Your task to perform on an android device: toggle airplane mode Image 0: 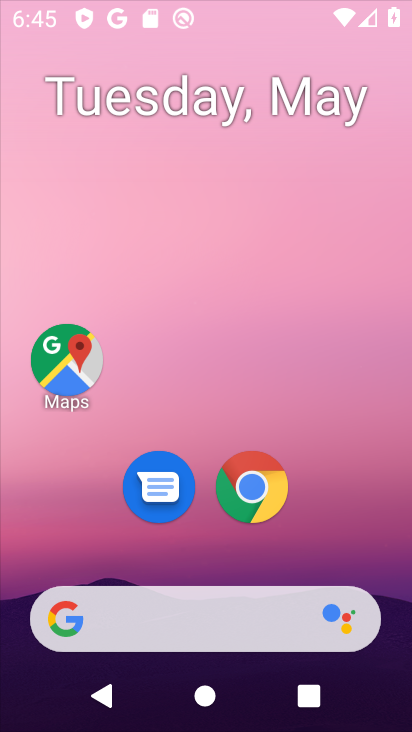
Step 0: click (247, 495)
Your task to perform on an android device: toggle airplane mode Image 1: 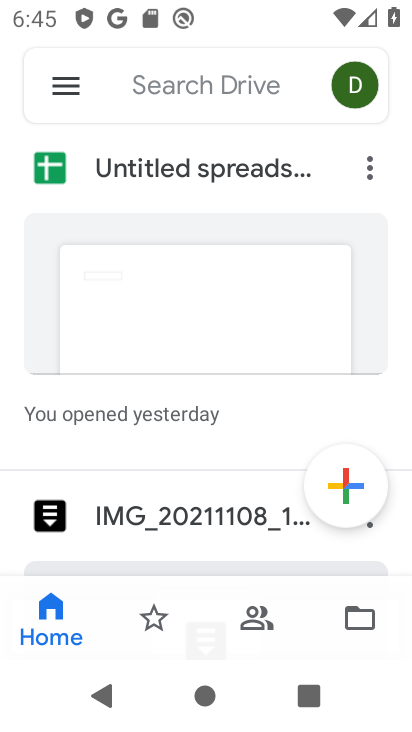
Step 1: press home button
Your task to perform on an android device: toggle airplane mode Image 2: 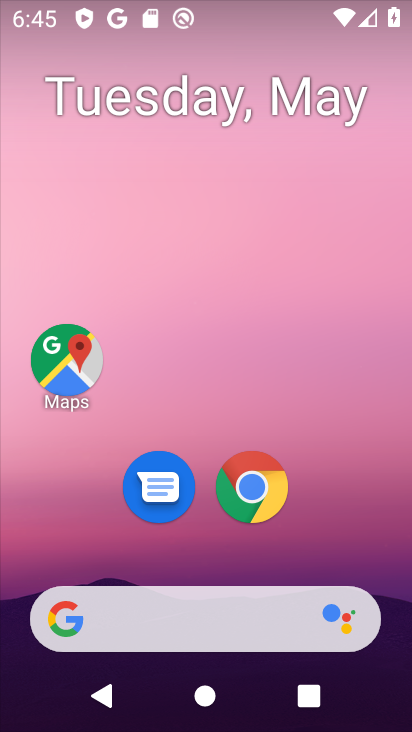
Step 2: drag from (350, 521) to (273, 45)
Your task to perform on an android device: toggle airplane mode Image 3: 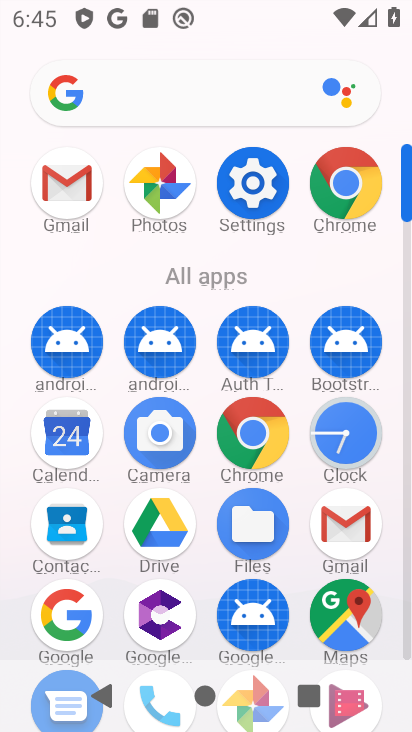
Step 3: click (253, 182)
Your task to perform on an android device: toggle airplane mode Image 4: 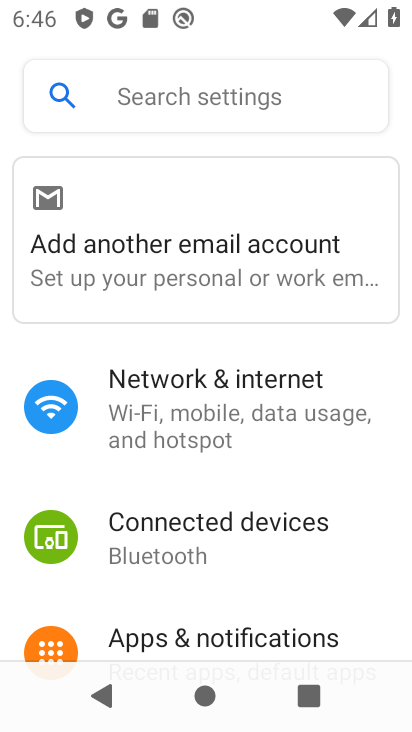
Step 4: click (189, 387)
Your task to perform on an android device: toggle airplane mode Image 5: 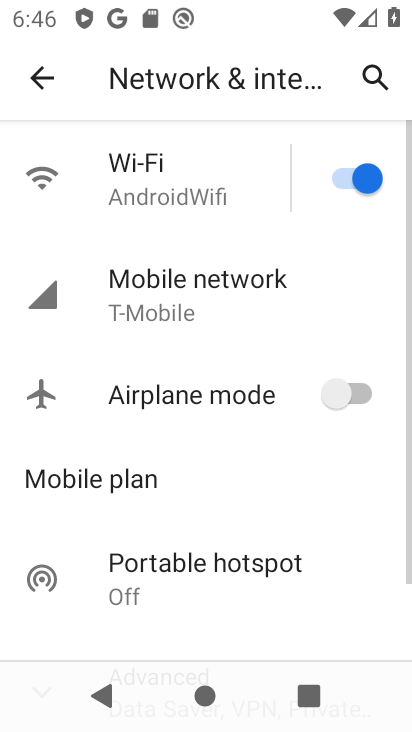
Step 5: click (352, 385)
Your task to perform on an android device: toggle airplane mode Image 6: 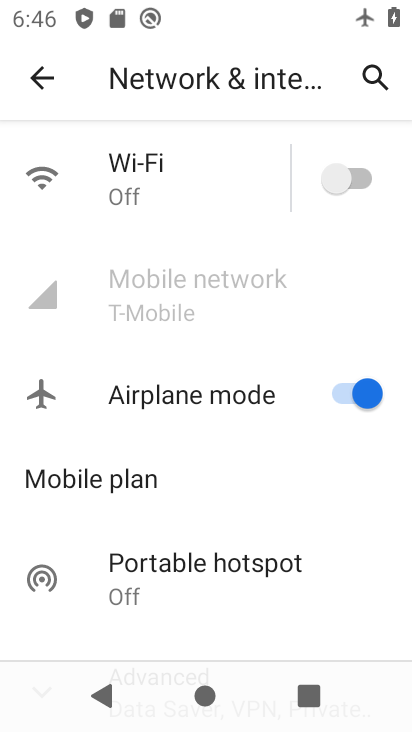
Step 6: task complete